Your task to perform on an android device: toggle pop-ups in chrome Image 0: 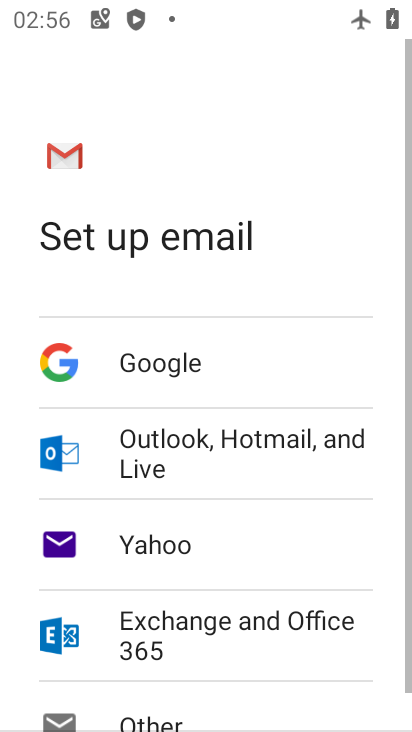
Step 0: press home button
Your task to perform on an android device: toggle pop-ups in chrome Image 1: 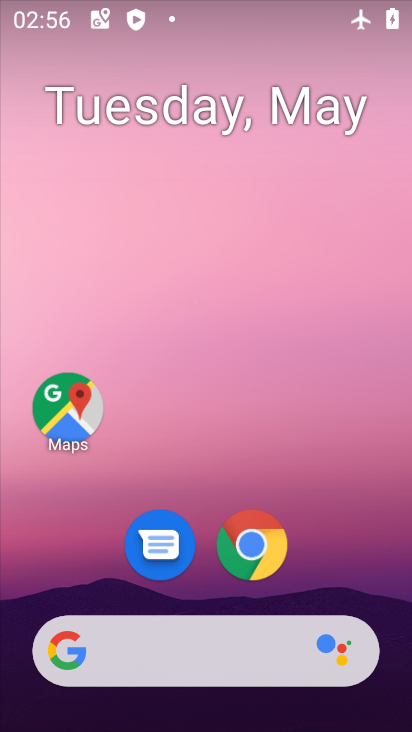
Step 1: click (253, 544)
Your task to perform on an android device: toggle pop-ups in chrome Image 2: 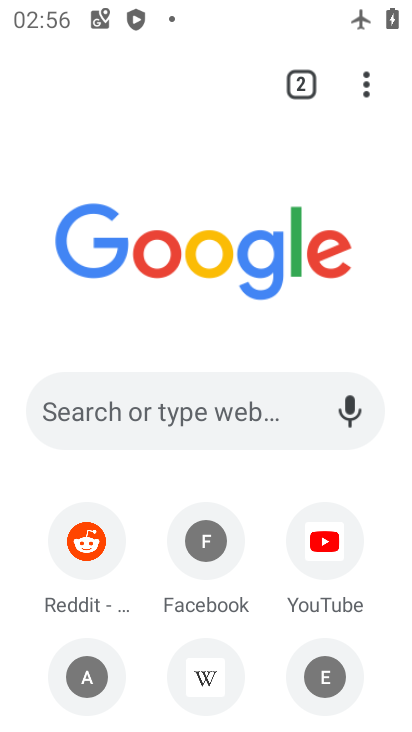
Step 2: click (363, 92)
Your task to perform on an android device: toggle pop-ups in chrome Image 3: 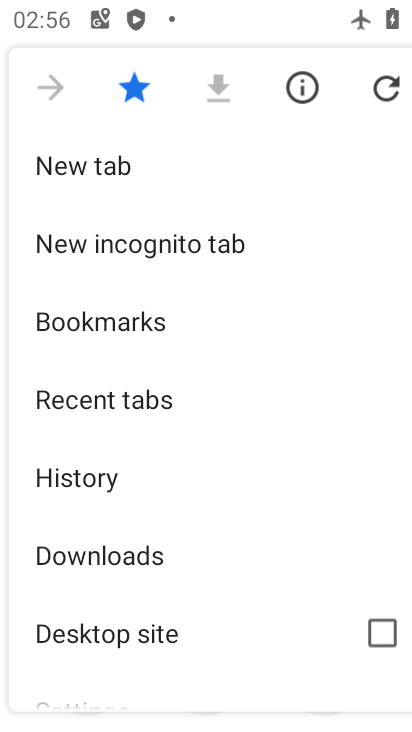
Step 3: drag from (251, 546) to (296, 206)
Your task to perform on an android device: toggle pop-ups in chrome Image 4: 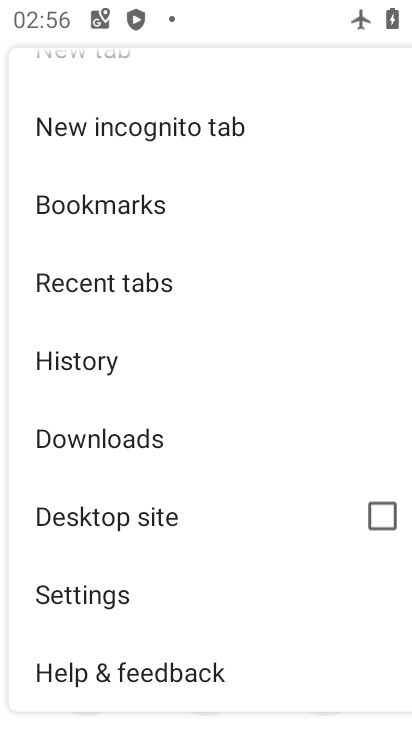
Step 4: click (84, 581)
Your task to perform on an android device: toggle pop-ups in chrome Image 5: 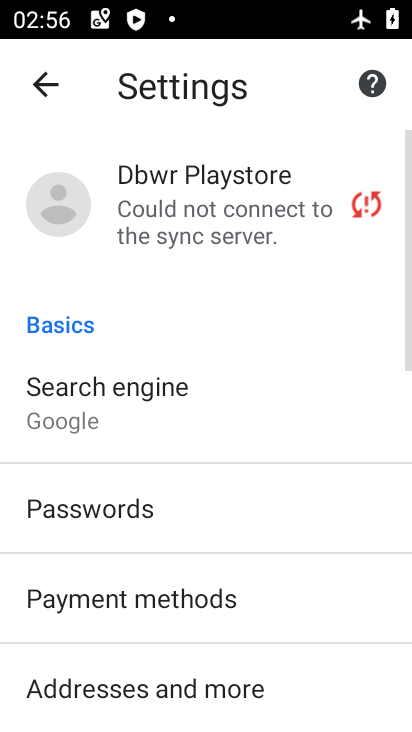
Step 5: drag from (307, 635) to (232, 239)
Your task to perform on an android device: toggle pop-ups in chrome Image 6: 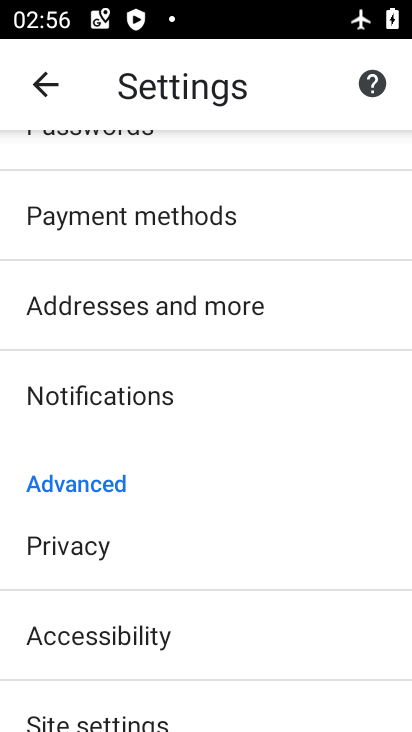
Step 6: drag from (211, 631) to (186, 259)
Your task to perform on an android device: toggle pop-ups in chrome Image 7: 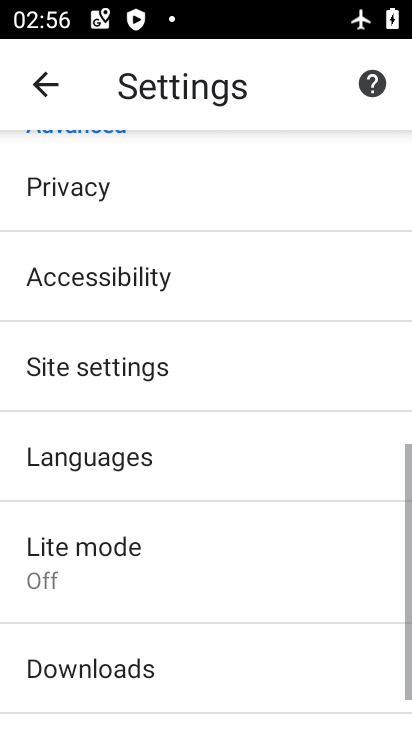
Step 7: click (82, 381)
Your task to perform on an android device: toggle pop-ups in chrome Image 8: 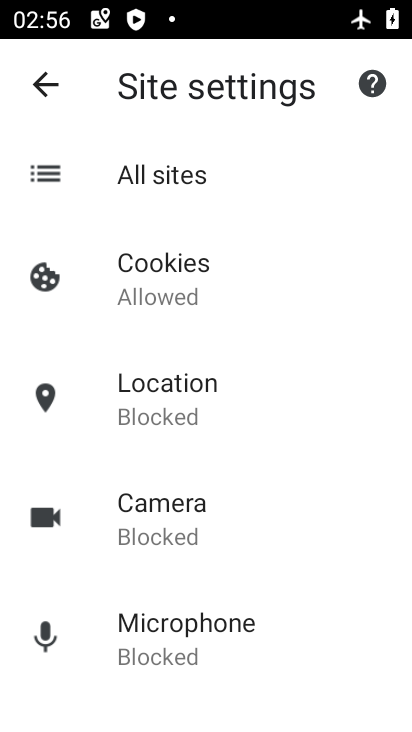
Step 8: drag from (282, 636) to (263, 278)
Your task to perform on an android device: toggle pop-ups in chrome Image 9: 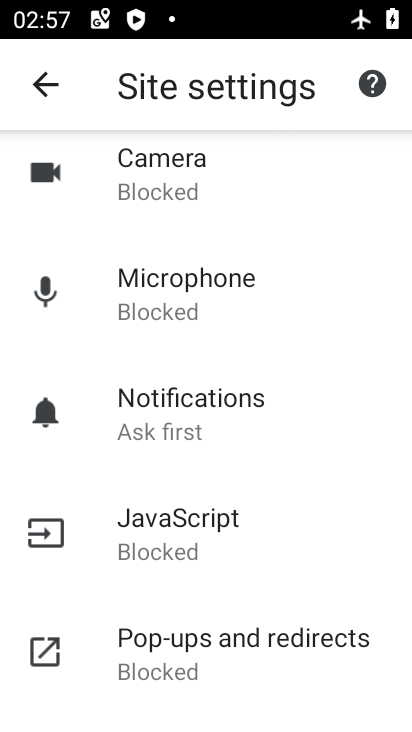
Step 9: click (168, 647)
Your task to perform on an android device: toggle pop-ups in chrome Image 10: 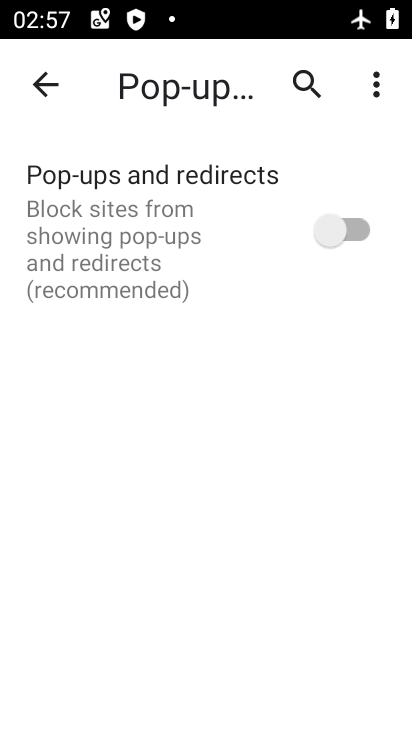
Step 10: click (356, 227)
Your task to perform on an android device: toggle pop-ups in chrome Image 11: 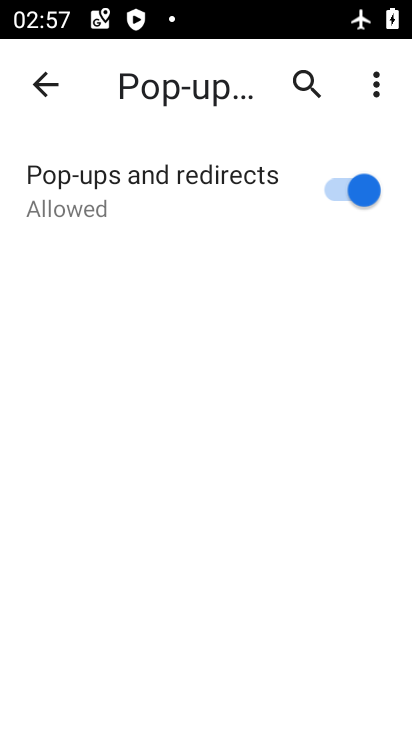
Step 11: task complete